Your task to perform on an android device: Go to internet settings Image 0: 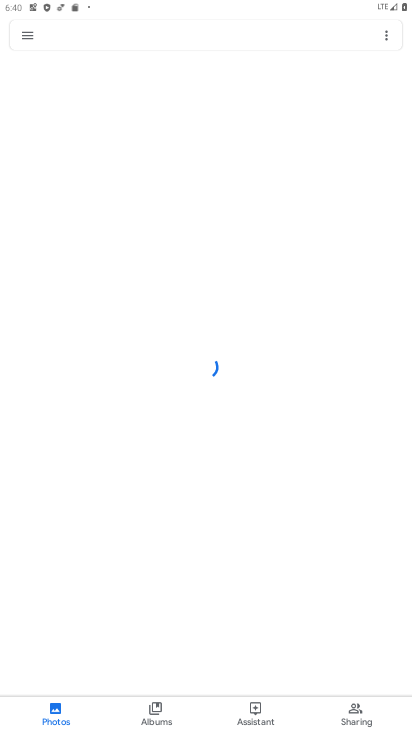
Step 0: press home button
Your task to perform on an android device: Go to internet settings Image 1: 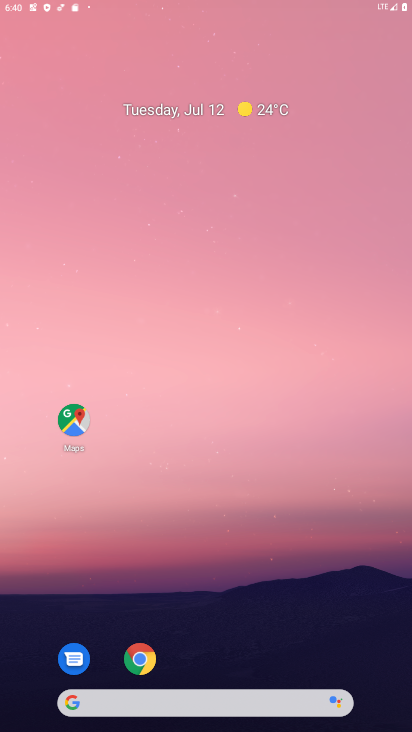
Step 1: drag from (372, 647) to (181, 1)
Your task to perform on an android device: Go to internet settings Image 2: 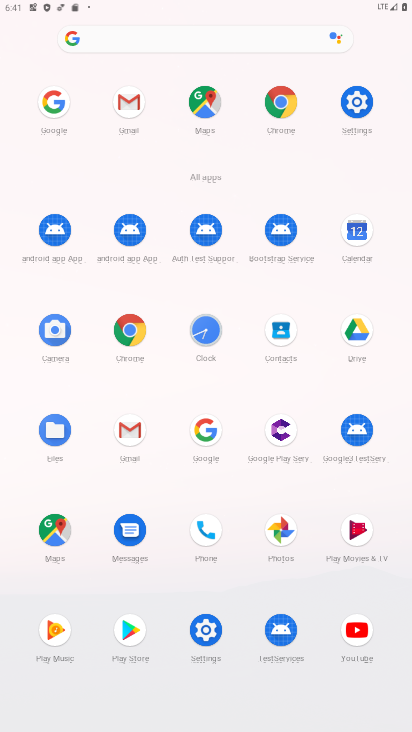
Step 2: click (358, 107)
Your task to perform on an android device: Go to internet settings Image 3: 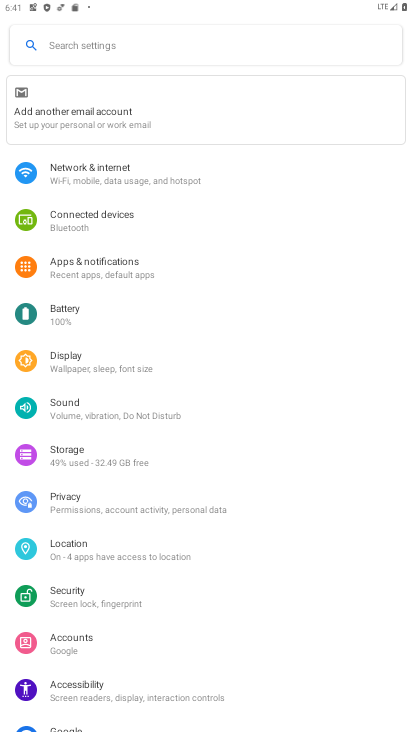
Step 3: click (128, 163)
Your task to perform on an android device: Go to internet settings Image 4: 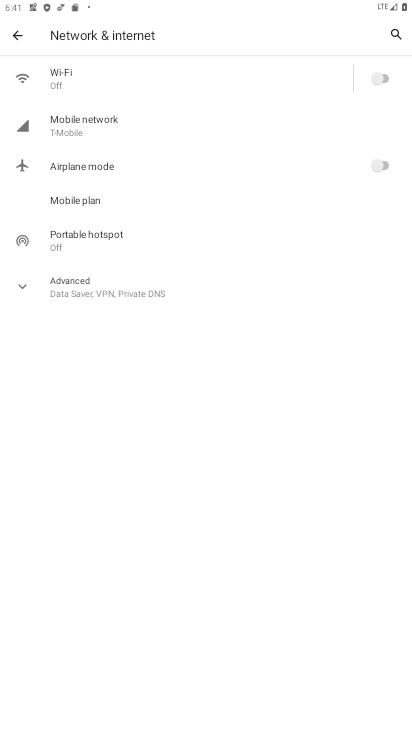
Step 4: task complete